Your task to perform on an android device: open a new tab in the chrome app Image 0: 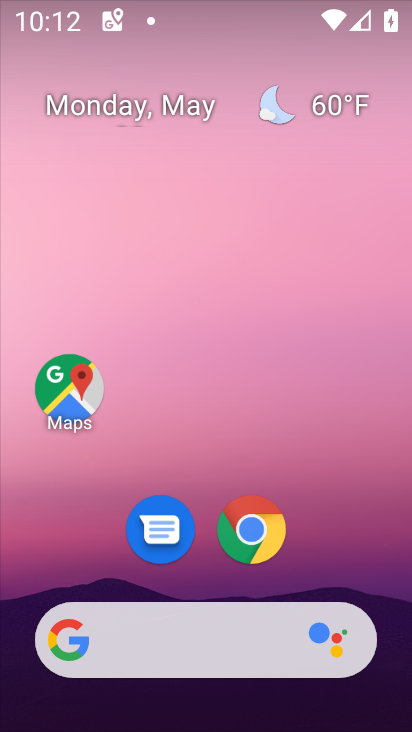
Step 0: drag from (317, 553) to (250, 124)
Your task to perform on an android device: open a new tab in the chrome app Image 1: 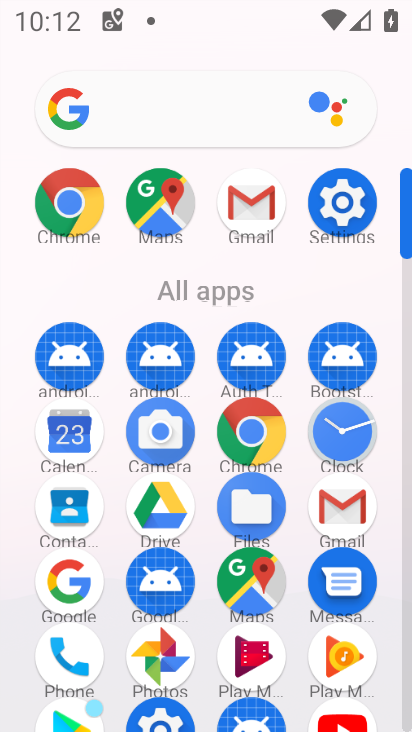
Step 1: click (65, 213)
Your task to perform on an android device: open a new tab in the chrome app Image 2: 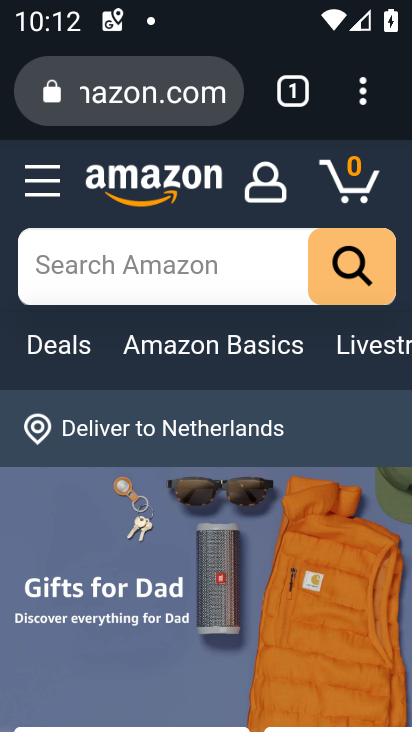
Step 2: click (300, 109)
Your task to perform on an android device: open a new tab in the chrome app Image 3: 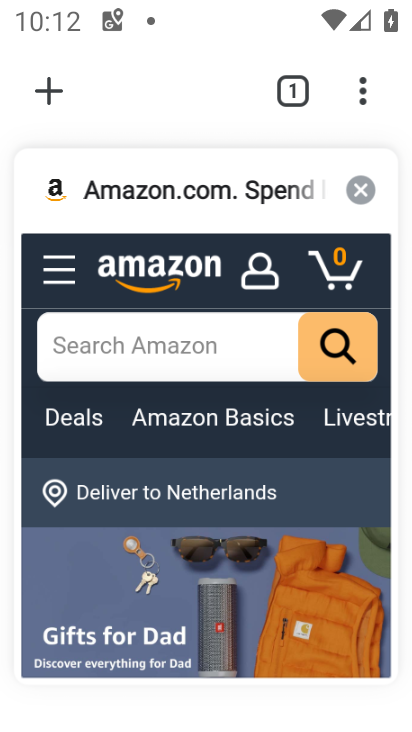
Step 3: click (40, 99)
Your task to perform on an android device: open a new tab in the chrome app Image 4: 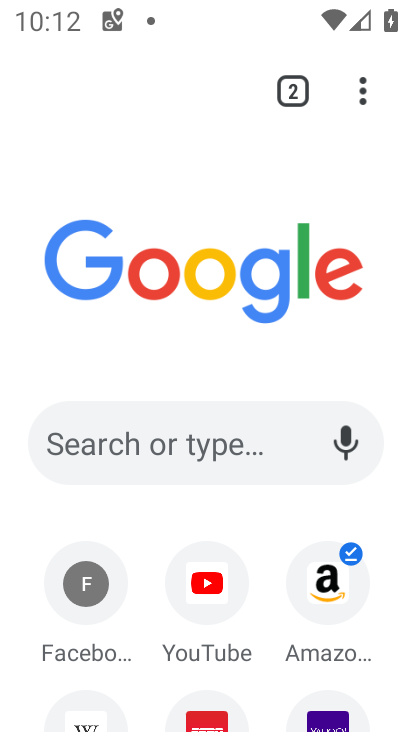
Step 4: task complete